Your task to perform on an android device: change alarm snooze length Image 0: 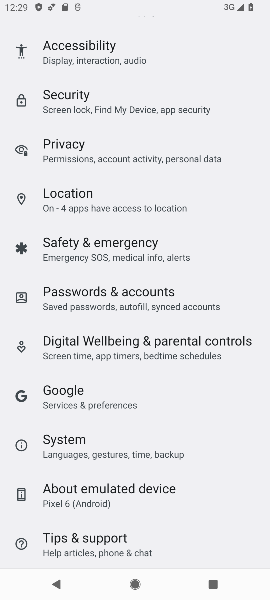
Step 0: press home button
Your task to perform on an android device: change alarm snooze length Image 1: 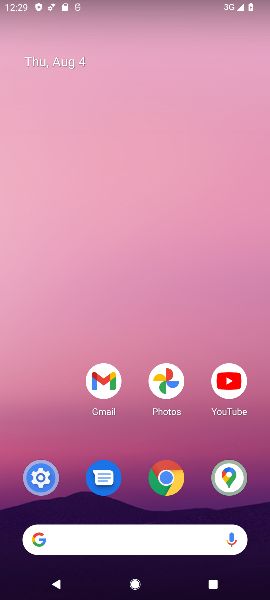
Step 1: drag from (191, 494) to (191, 141)
Your task to perform on an android device: change alarm snooze length Image 2: 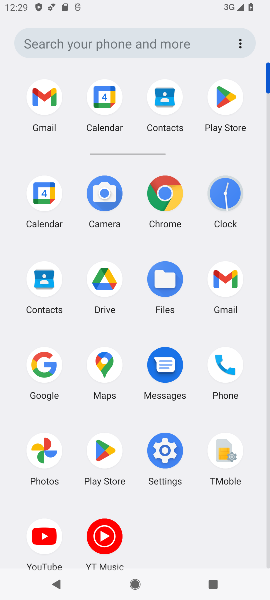
Step 2: click (233, 186)
Your task to perform on an android device: change alarm snooze length Image 3: 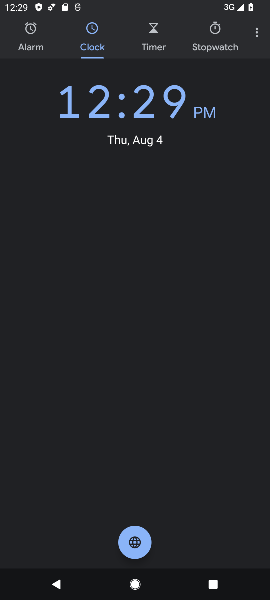
Step 3: click (258, 29)
Your task to perform on an android device: change alarm snooze length Image 4: 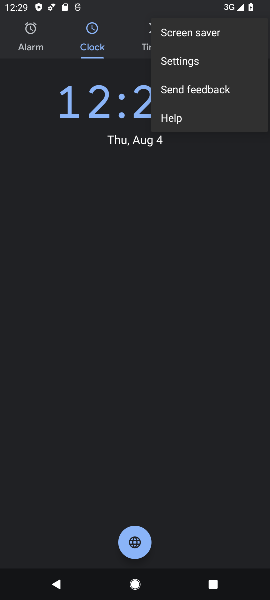
Step 4: click (192, 64)
Your task to perform on an android device: change alarm snooze length Image 5: 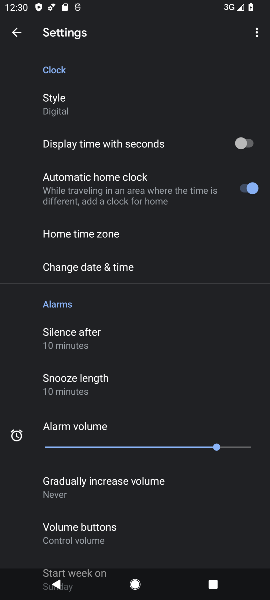
Step 5: click (88, 381)
Your task to perform on an android device: change alarm snooze length Image 6: 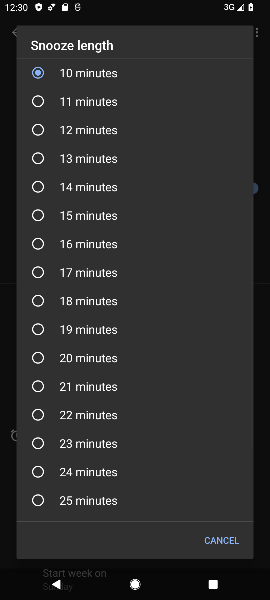
Step 6: click (81, 110)
Your task to perform on an android device: change alarm snooze length Image 7: 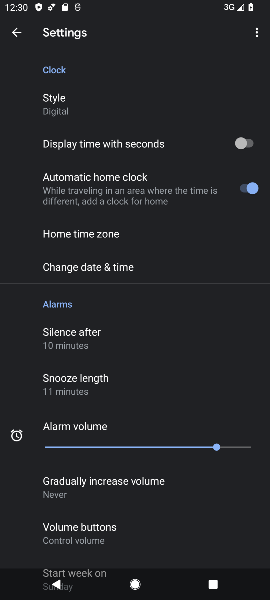
Step 7: task complete